Your task to perform on an android device: Go to settings Image 0: 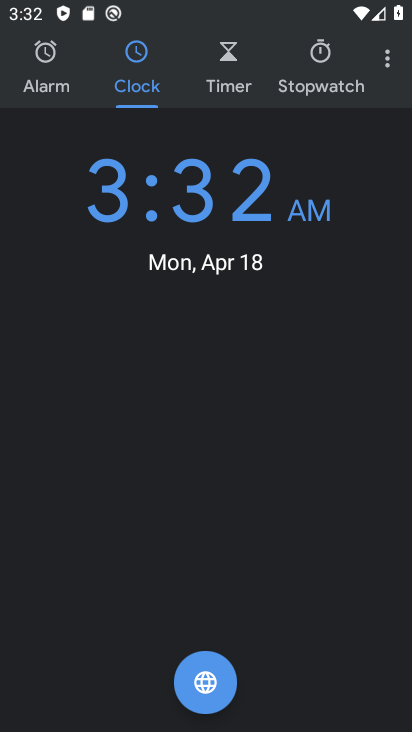
Step 0: press back button
Your task to perform on an android device: Go to settings Image 1: 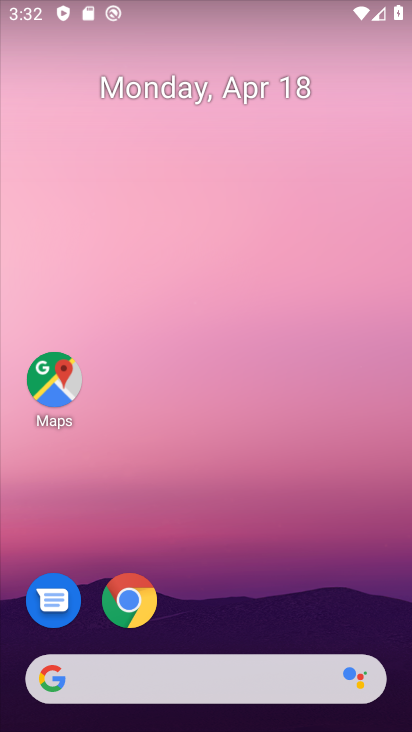
Step 1: drag from (237, 722) to (205, 191)
Your task to perform on an android device: Go to settings Image 2: 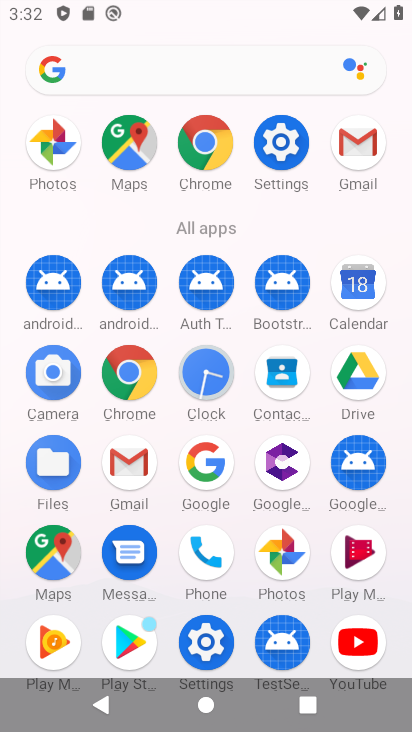
Step 2: click (280, 143)
Your task to perform on an android device: Go to settings Image 3: 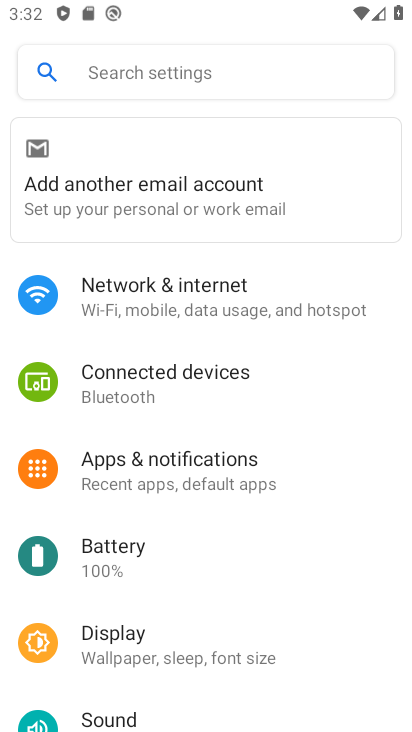
Step 3: click (153, 78)
Your task to perform on an android device: Go to settings Image 4: 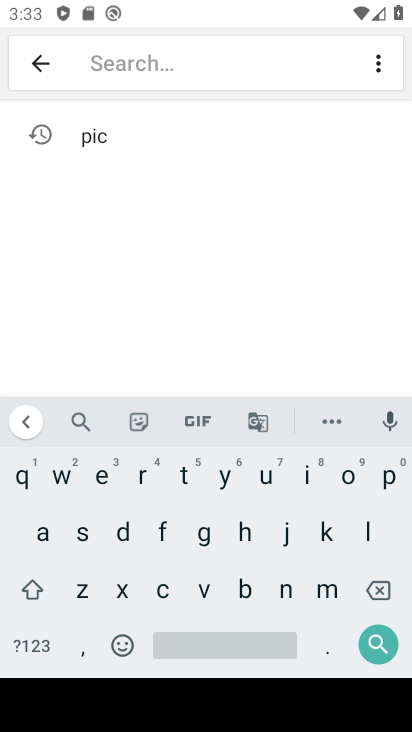
Step 4: click (85, 531)
Your task to perform on an android device: Go to settings Image 5: 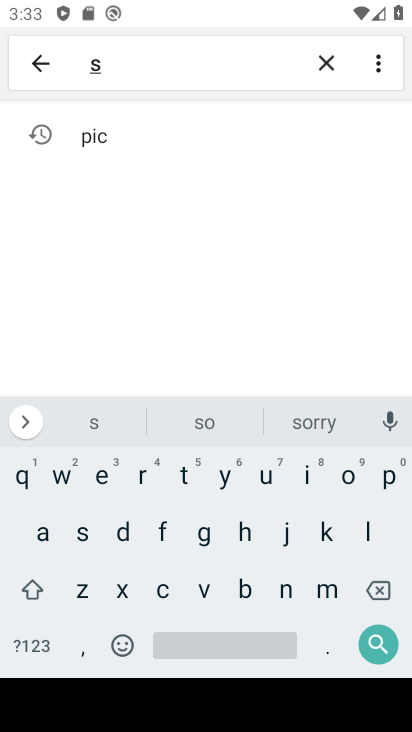
Step 5: click (107, 476)
Your task to perform on an android device: Go to settings Image 6: 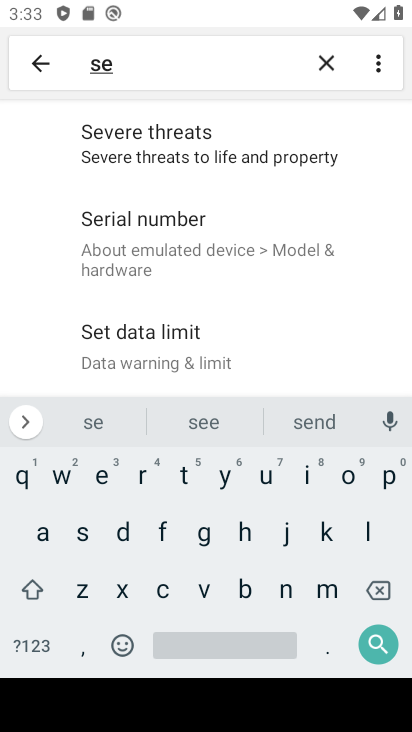
Step 6: click (182, 479)
Your task to perform on an android device: Go to settings Image 7: 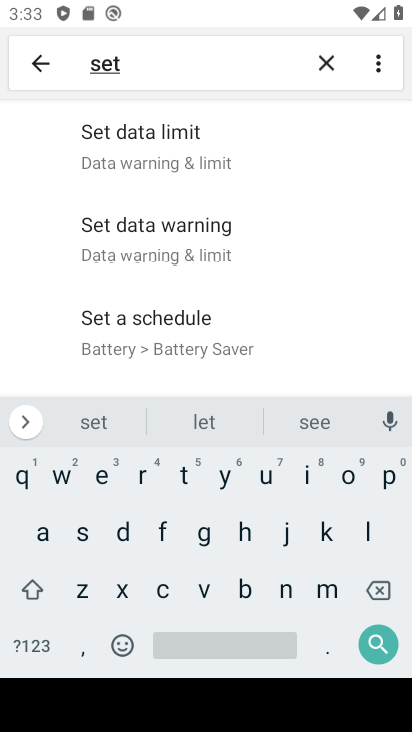
Step 7: click (300, 480)
Your task to perform on an android device: Go to settings Image 8: 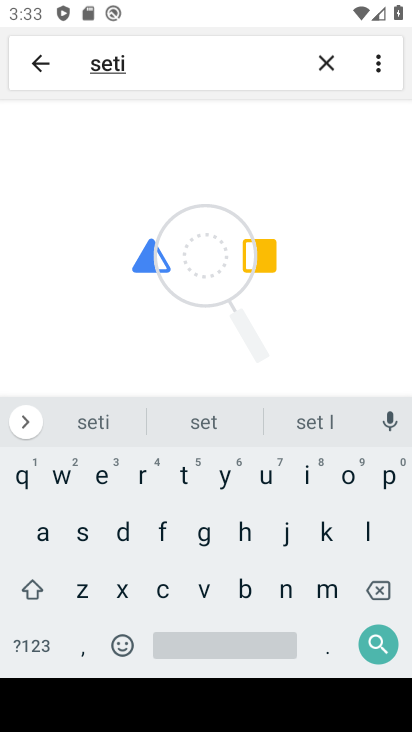
Step 8: click (374, 591)
Your task to perform on an android device: Go to settings Image 9: 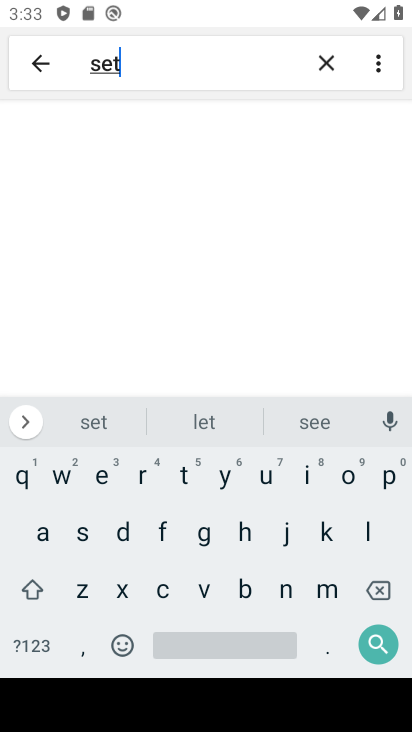
Step 9: click (175, 476)
Your task to perform on an android device: Go to settings Image 10: 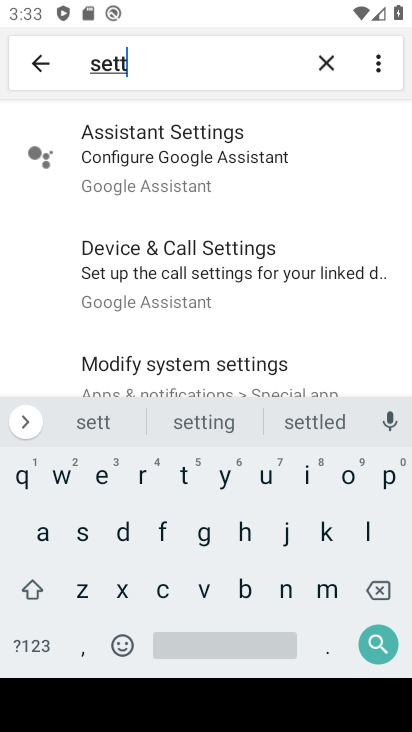
Step 10: click (221, 427)
Your task to perform on an android device: Go to settings Image 11: 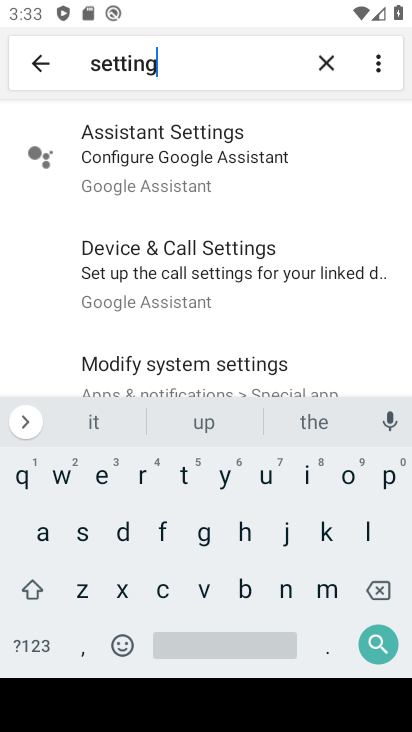
Step 11: click (208, 158)
Your task to perform on an android device: Go to settings Image 12: 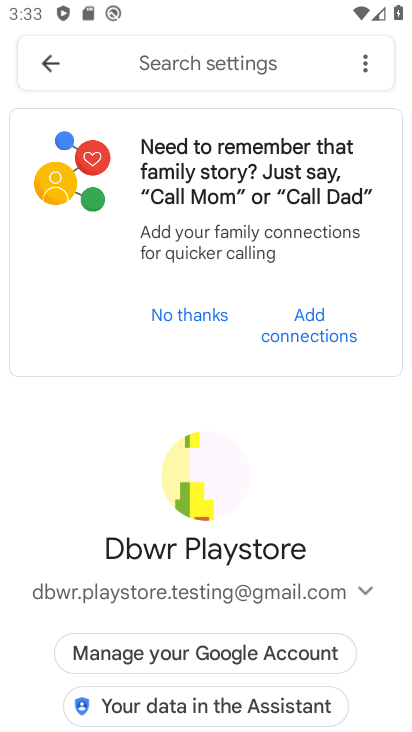
Step 12: task complete